Your task to perform on an android device: Go to notification settings Image 0: 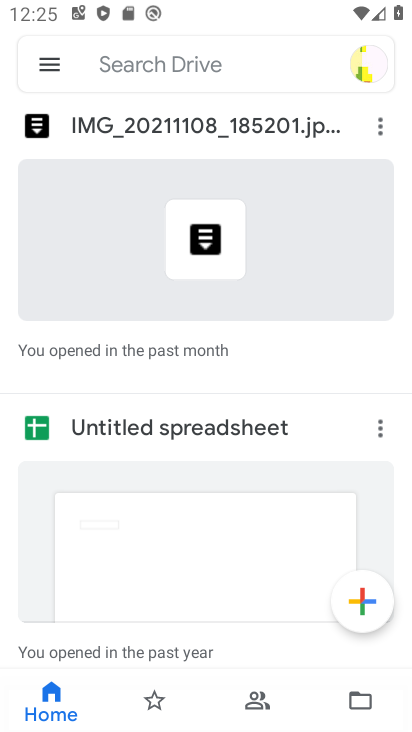
Step 0: press home button
Your task to perform on an android device: Go to notification settings Image 1: 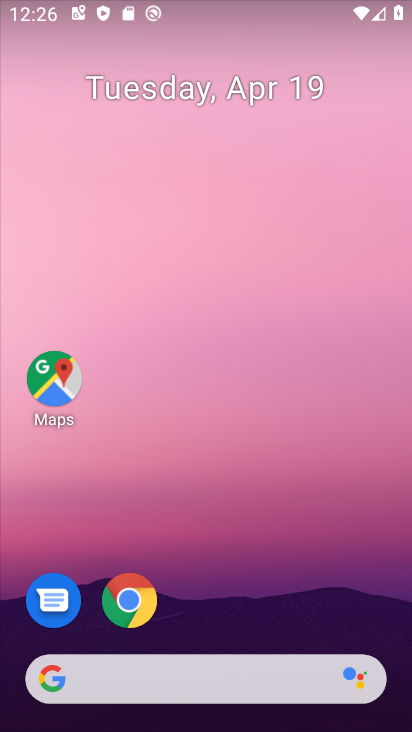
Step 1: drag from (288, 500) to (292, 1)
Your task to perform on an android device: Go to notification settings Image 2: 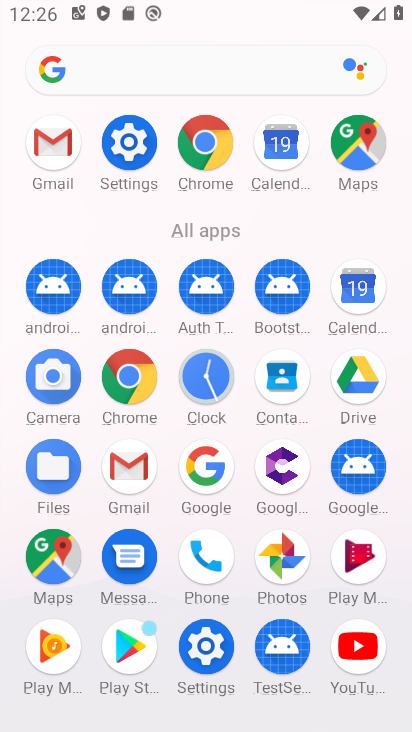
Step 2: click (117, 149)
Your task to perform on an android device: Go to notification settings Image 3: 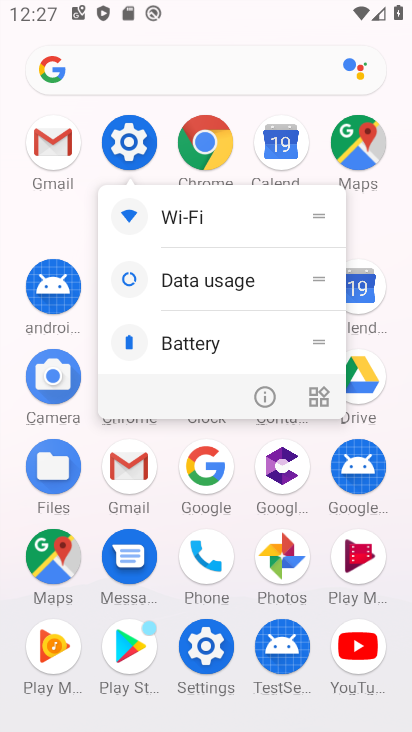
Step 3: click (126, 141)
Your task to perform on an android device: Go to notification settings Image 4: 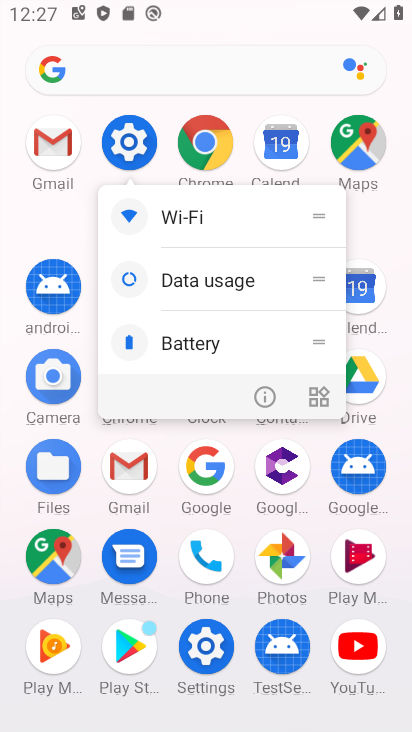
Step 4: click (136, 169)
Your task to perform on an android device: Go to notification settings Image 5: 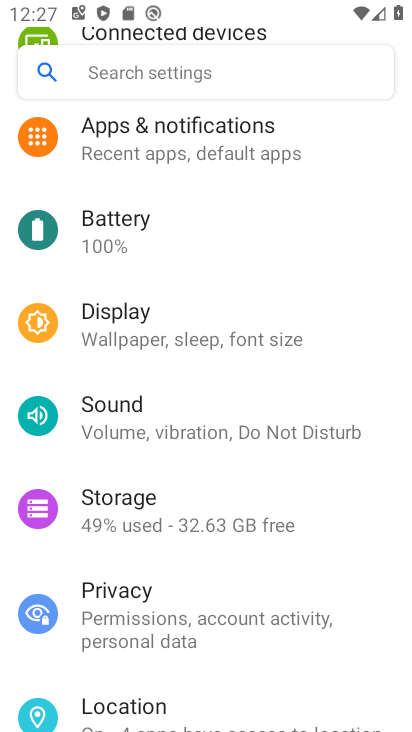
Step 5: task complete